Your task to perform on an android device: Open settings on Google Maps Image 0: 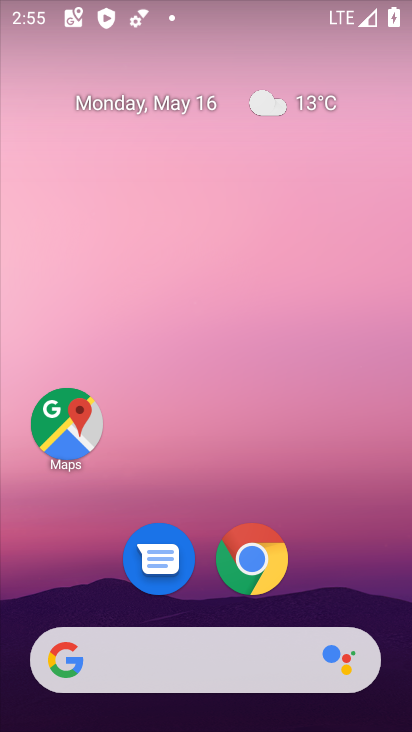
Step 0: drag from (221, 598) to (232, 88)
Your task to perform on an android device: Open settings on Google Maps Image 1: 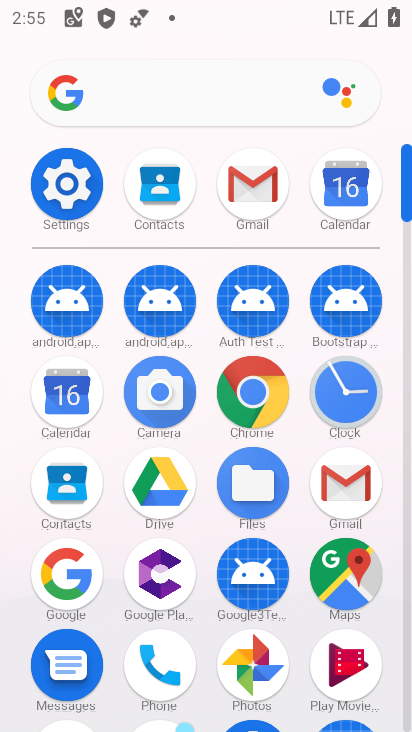
Step 1: click (66, 170)
Your task to perform on an android device: Open settings on Google Maps Image 2: 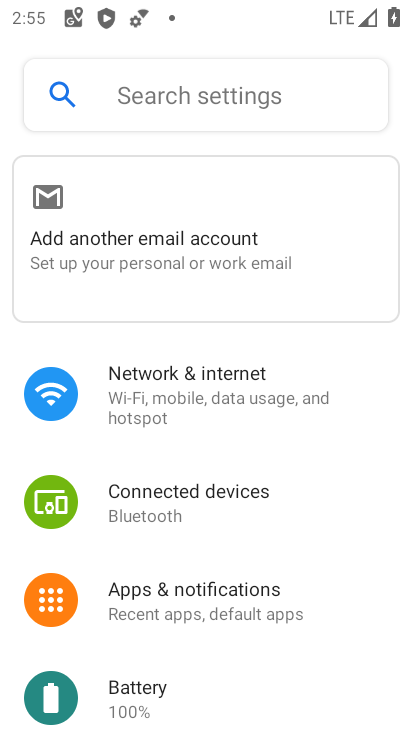
Step 2: task complete